Your task to perform on an android device: visit the assistant section in the google photos Image 0: 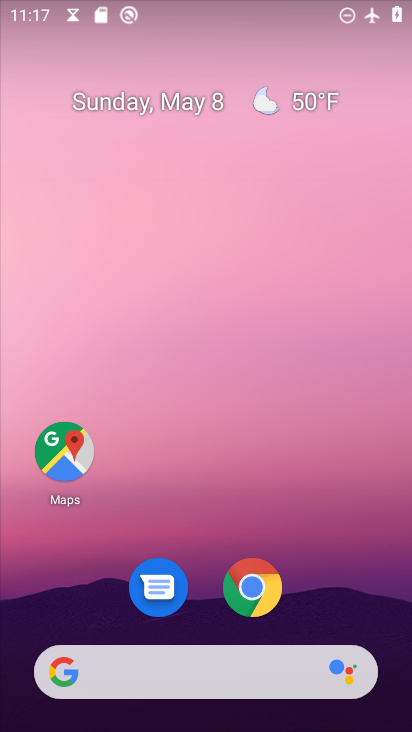
Step 0: drag from (341, 603) to (231, 109)
Your task to perform on an android device: visit the assistant section in the google photos Image 1: 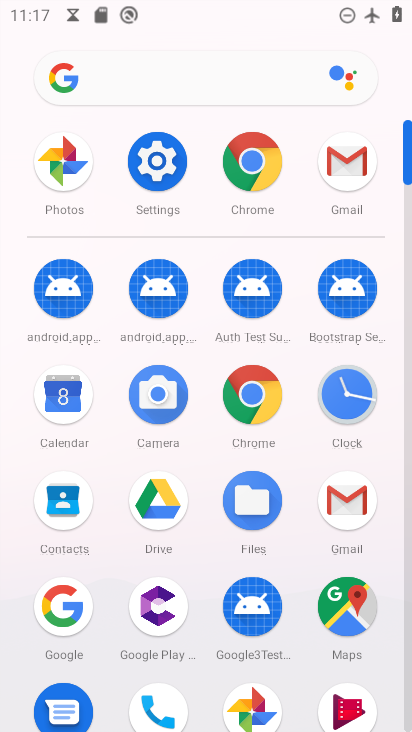
Step 1: click (78, 167)
Your task to perform on an android device: visit the assistant section in the google photos Image 2: 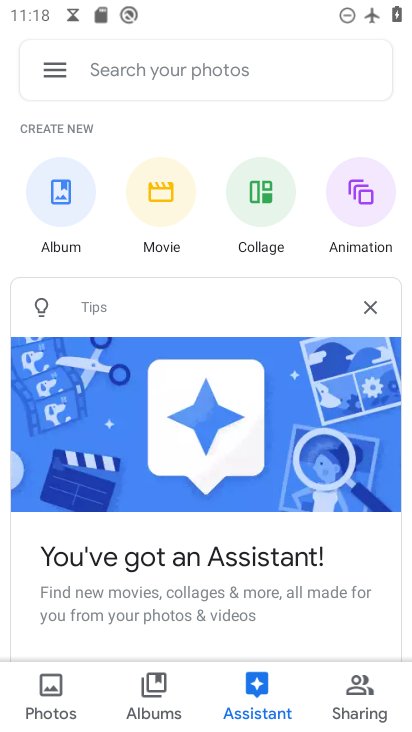
Step 2: task complete